Your task to perform on an android device: turn off picture-in-picture Image 0: 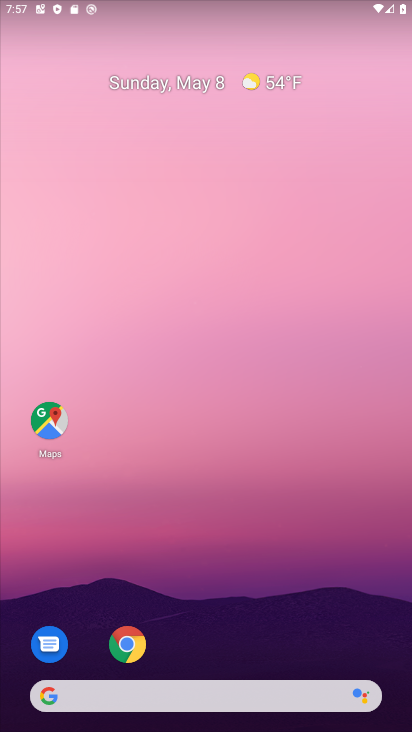
Step 0: drag from (193, 609) to (191, 25)
Your task to perform on an android device: turn off picture-in-picture Image 1: 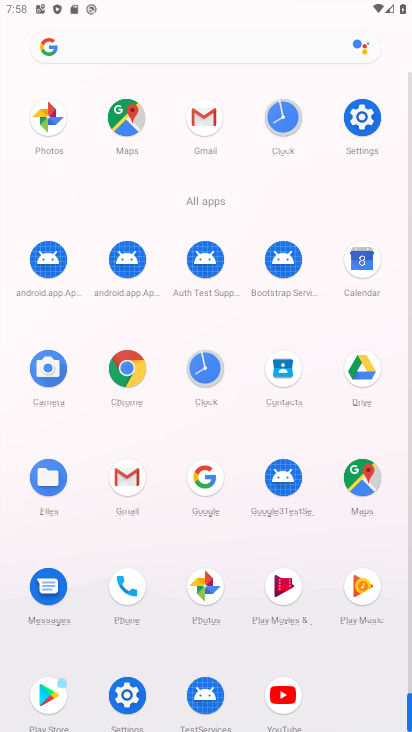
Step 1: click (361, 122)
Your task to perform on an android device: turn off picture-in-picture Image 2: 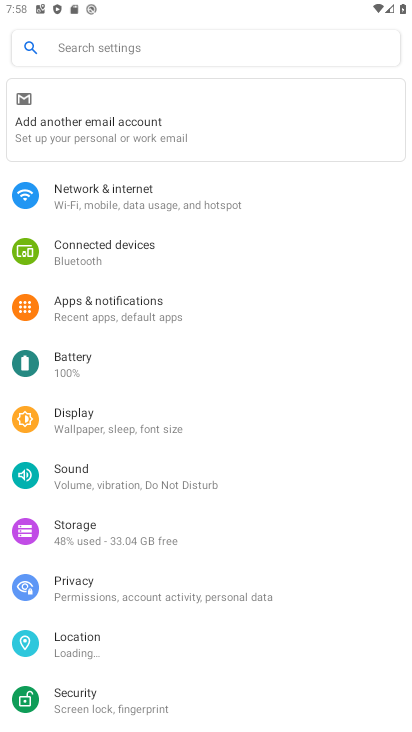
Step 2: drag from (154, 561) to (273, 185)
Your task to perform on an android device: turn off picture-in-picture Image 3: 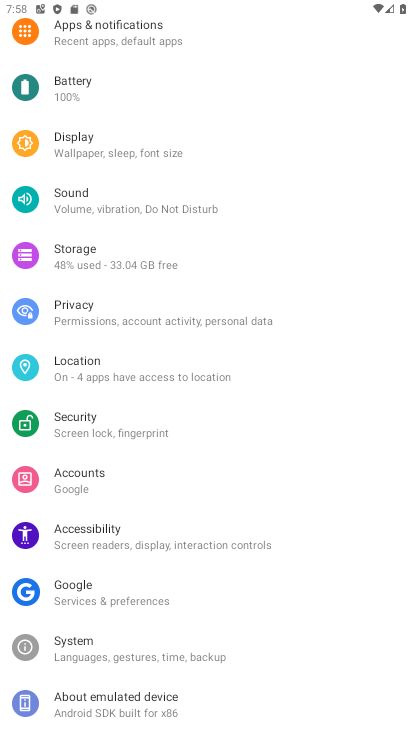
Step 3: click (130, 42)
Your task to perform on an android device: turn off picture-in-picture Image 4: 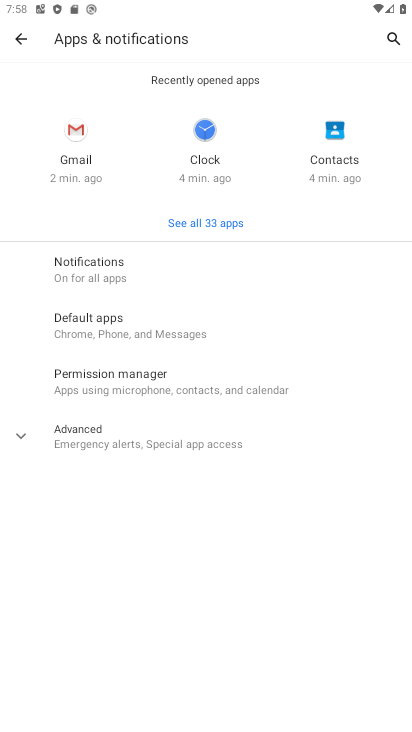
Step 4: click (135, 434)
Your task to perform on an android device: turn off picture-in-picture Image 5: 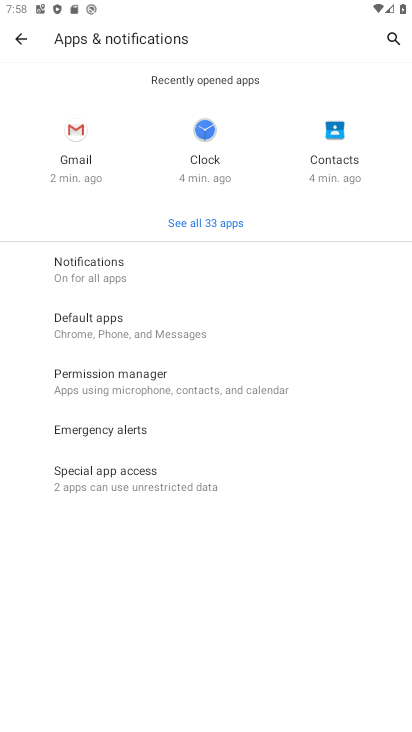
Step 5: click (189, 482)
Your task to perform on an android device: turn off picture-in-picture Image 6: 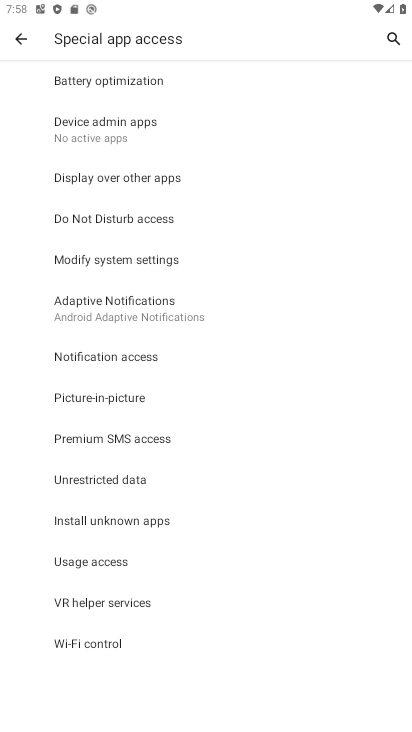
Step 6: click (163, 402)
Your task to perform on an android device: turn off picture-in-picture Image 7: 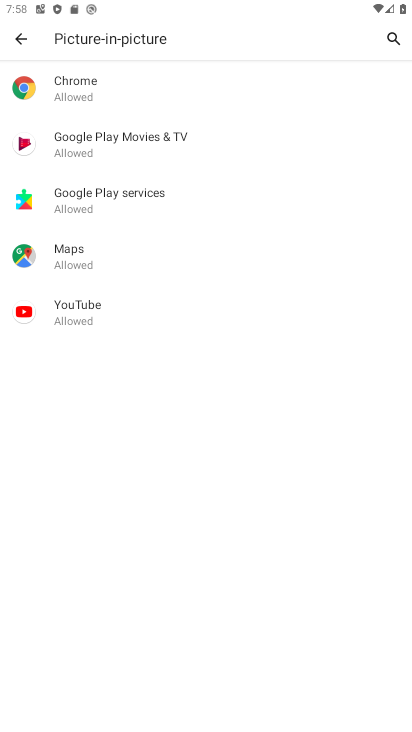
Step 7: drag from (184, 633) to (218, 191)
Your task to perform on an android device: turn off picture-in-picture Image 8: 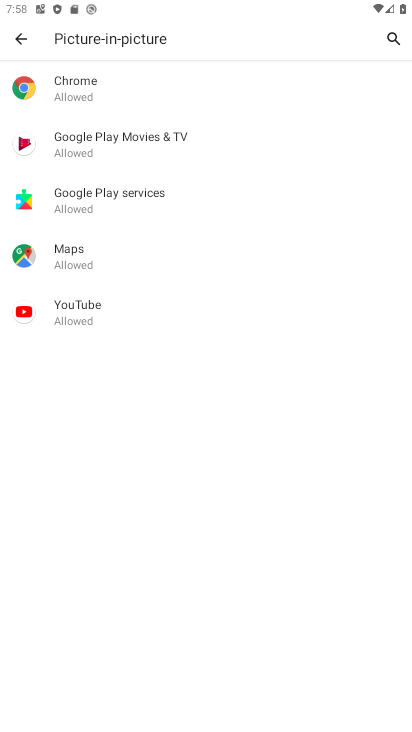
Step 8: drag from (199, 464) to (255, 184)
Your task to perform on an android device: turn off picture-in-picture Image 9: 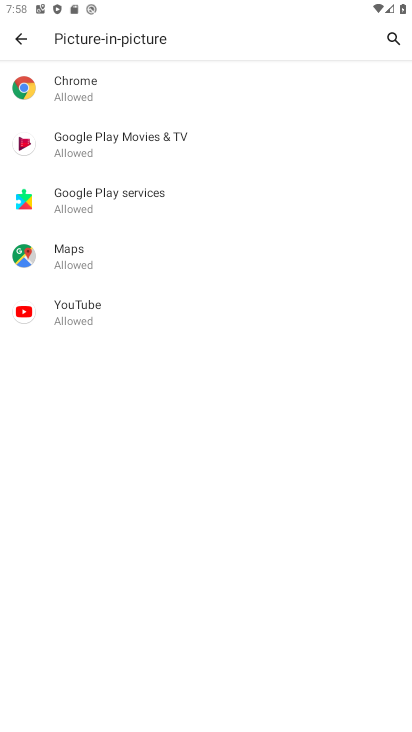
Step 9: click (49, 91)
Your task to perform on an android device: turn off picture-in-picture Image 10: 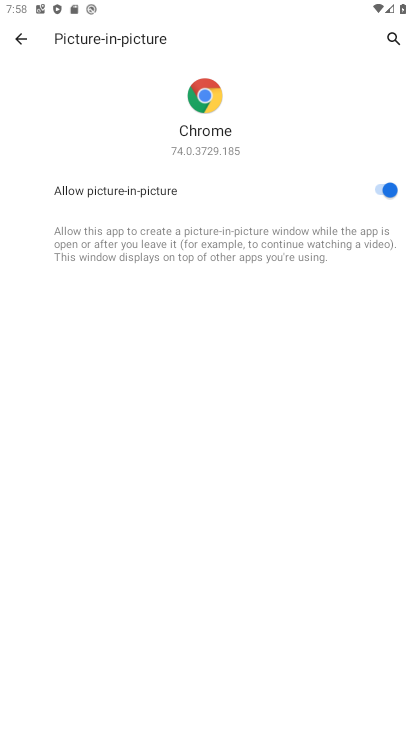
Step 10: click (394, 189)
Your task to perform on an android device: turn off picture-in-picture Image 11: 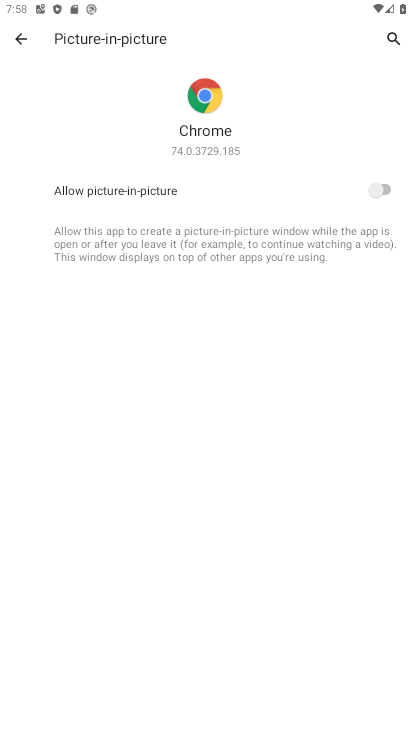
Step 11: task complete